Your task to perform on an android device: open the mobile data screen to see how much data has been used Image 0: 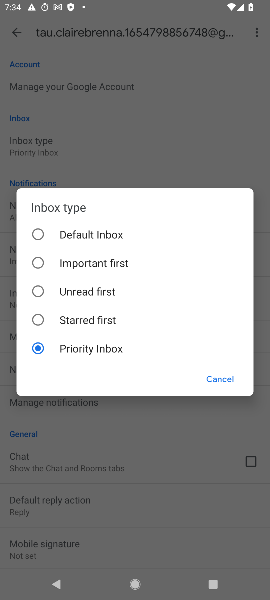
Step 0: press home button
Your task to perform on an android device: open the mobile data screen to see how much data has been used Image 1: 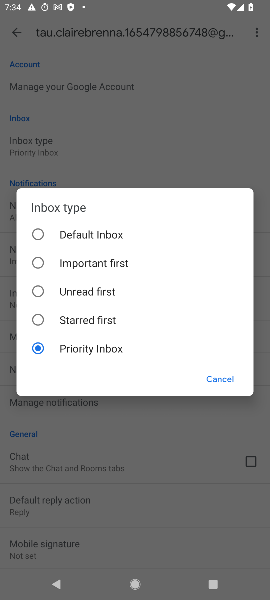
Step 1: press home button
Your task to perform on an android device: open the mobile data screen to see how much data has been used Image 2: 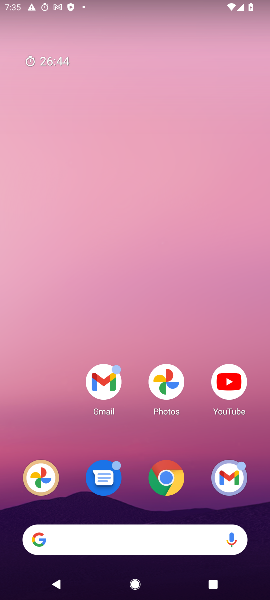
Step 2: drag from (131, 515) to (157, 270)
Your task to perform on an android device: open the mobile data screen to see how much data has been used Image 3: 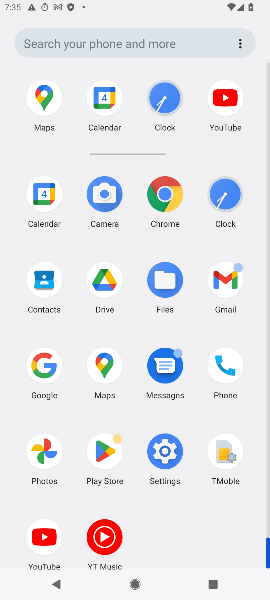
Step 3: click (167, 452)
Your task to perform on an android device: open the mobile data screen to see how much data has been used Image 4: 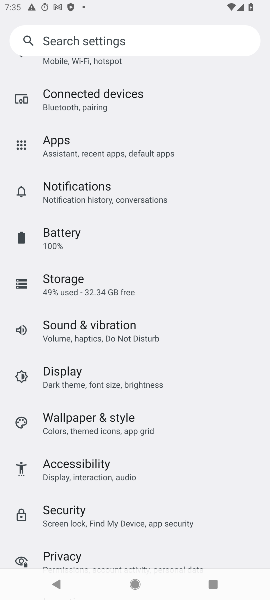
Step 4: drag from (119, 114) to (118, 506)
Your task to perform on an android device: open the mobile data screen to see how much data has been used Image 5: 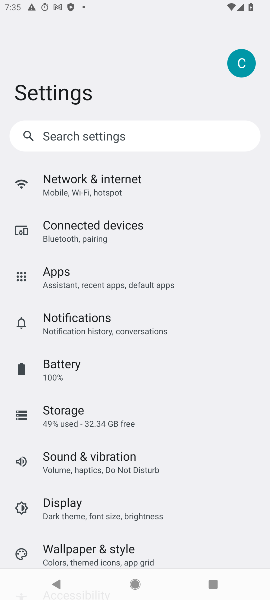
Step 5: click (124, 191)
Your task to perform on an android device: open the mobile data screen to see how much data has been used Image 6: 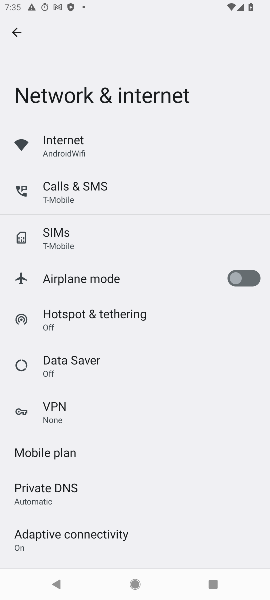
Step 6: click (132, 240)
Your task to perform on an android device: open the mobile data screen to see how much data has been used Image 7: 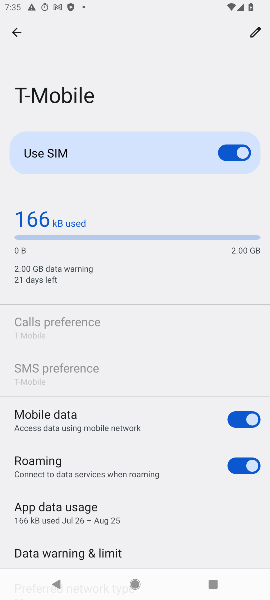
Step 7: task complete